Your task to perform on an android device: Open Google Chrome Image 0: 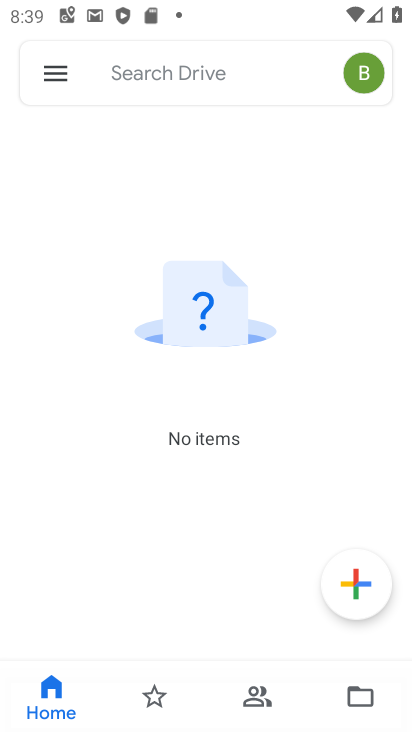
Step 0: press home button
Your task to perform on an android device: Open Google Chrome Image 1: 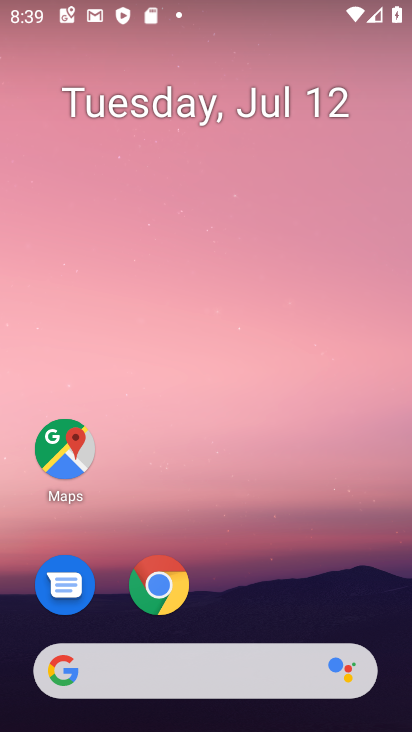
Step 1: click (171, 581)
Your task to perform on an android device: Open Google Chrome Image 2: 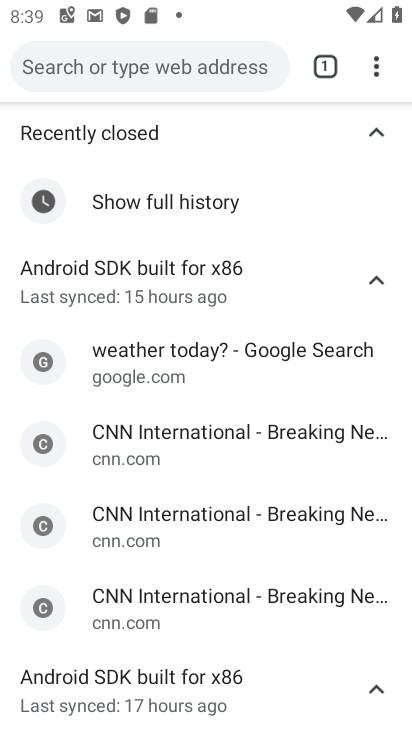
Step 2: click (374, 61)
Your task to perform on an android device: Open Google Chrome Image 3: 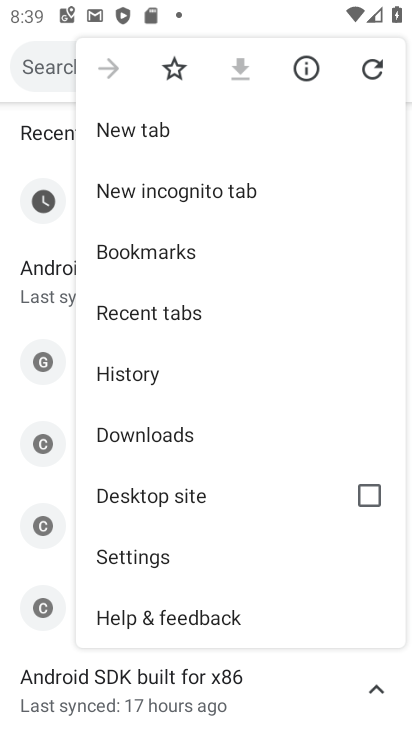
Step 3: click (255, 130)
Your task to perform on an android device: Open Google Chrome Image 4: 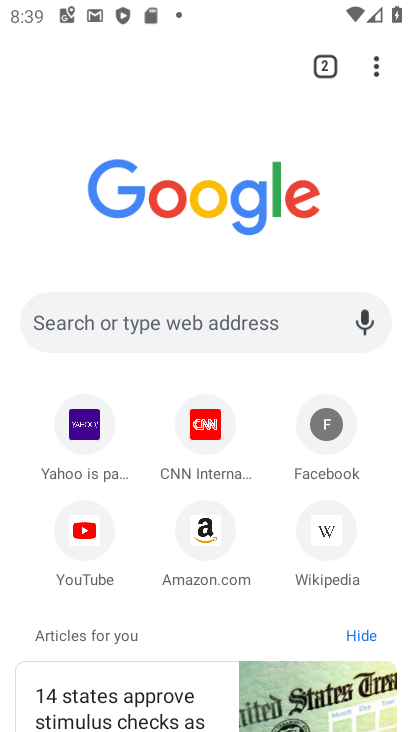
Step 4: task complete